Your task to perform on an android device: Do I have any events this weekend? Image 0: 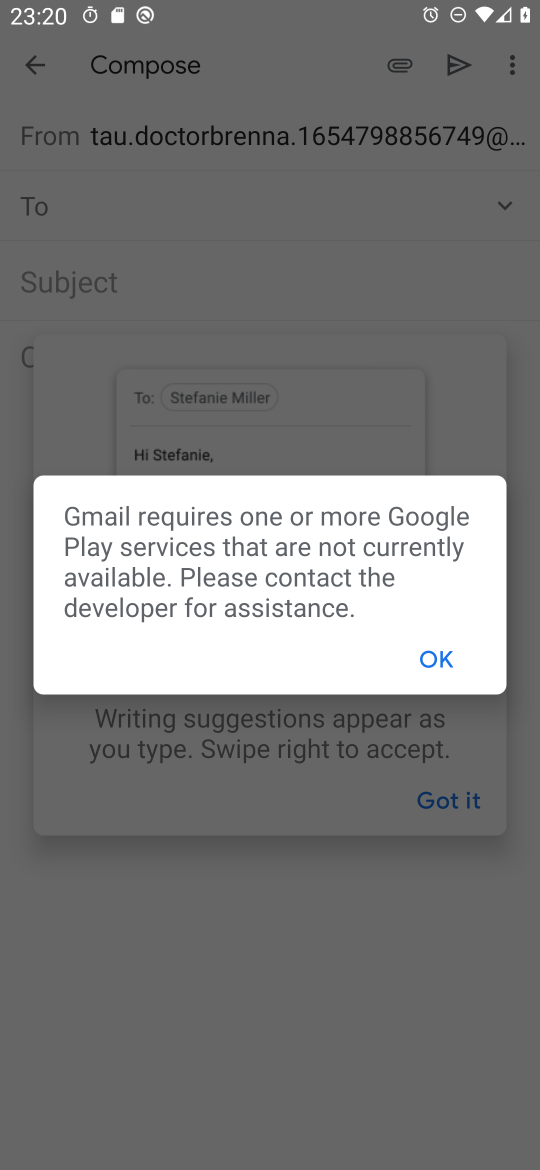
Step 0: press home button
Your task to perform on an android device: Do I have any events this weekend? Image 1: 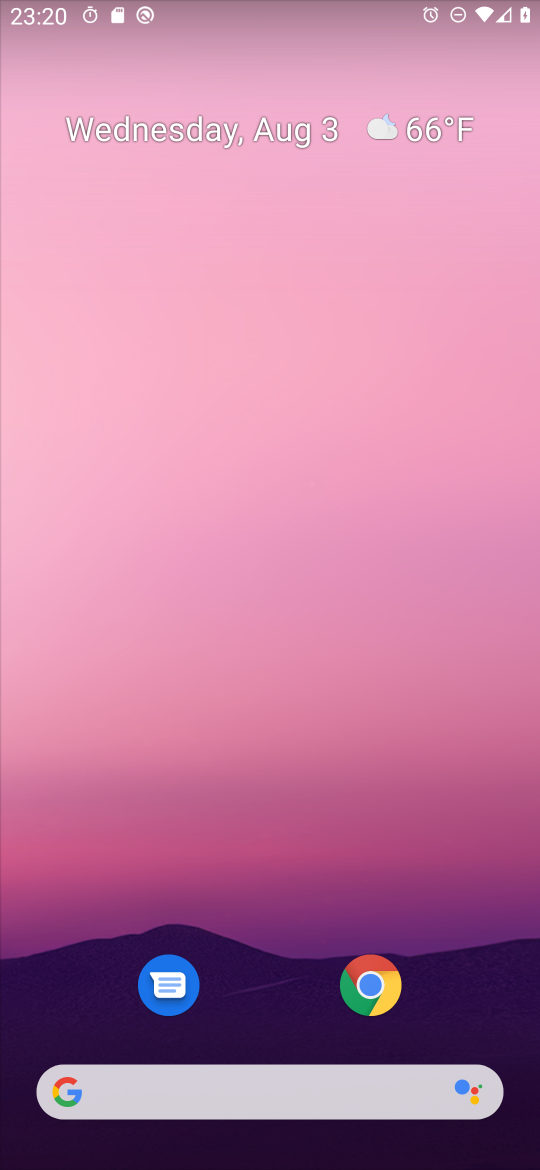
Step 1: drag from (258, 966) to (277, 341)
Your task to perform on an android device: Do I have any events this weekend? Image 2: 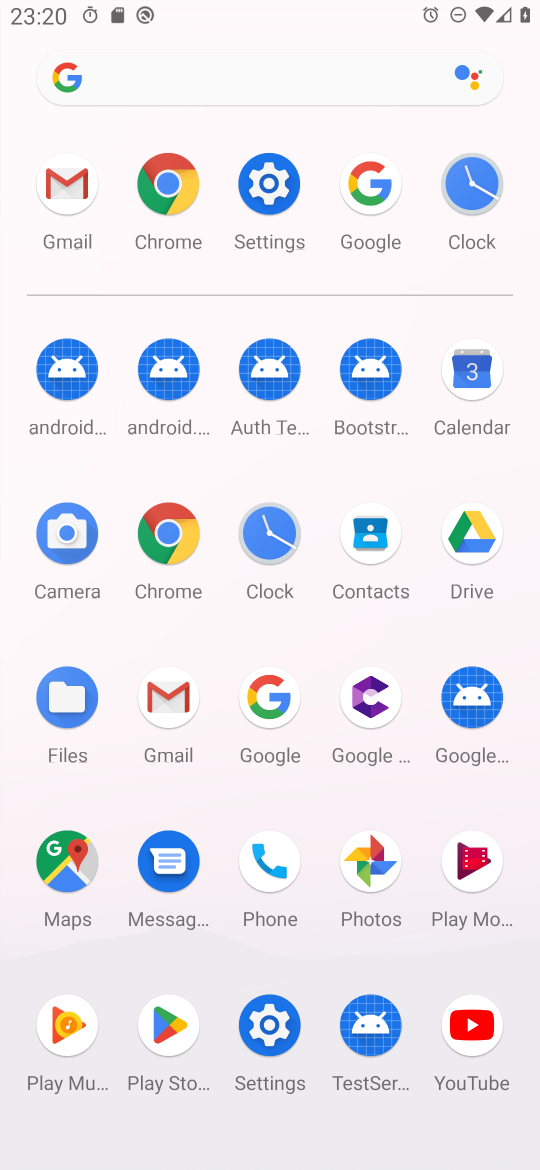
Step 2: click (462, 407)
Your task to perform on an android device: Do I have any events this weekend? Image 3: 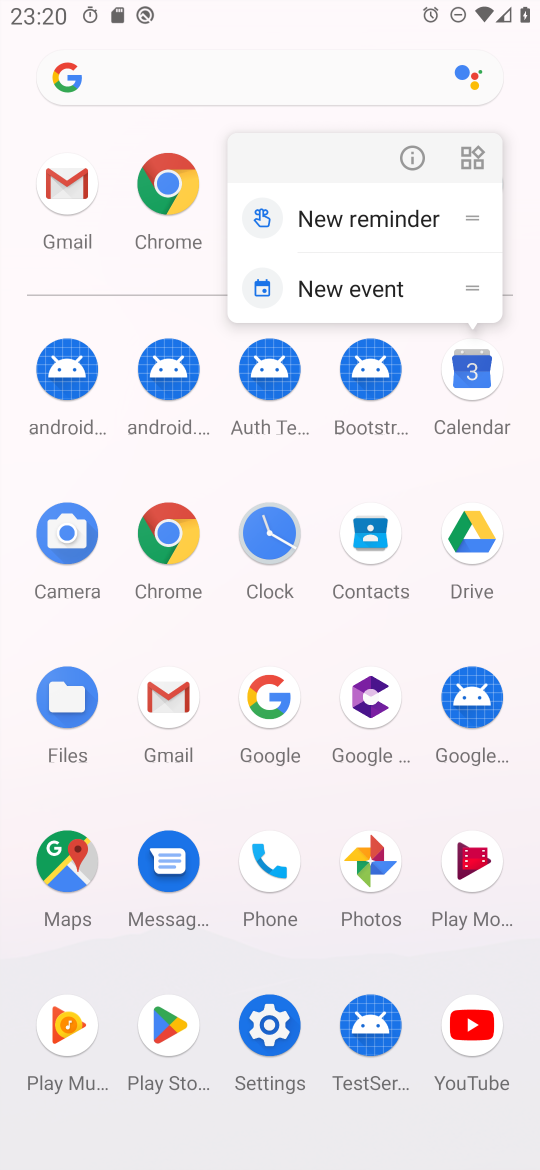
Step 3: click (462, 407)
Your task to perform on an android device: Do I have any events this weekend? Image 4: 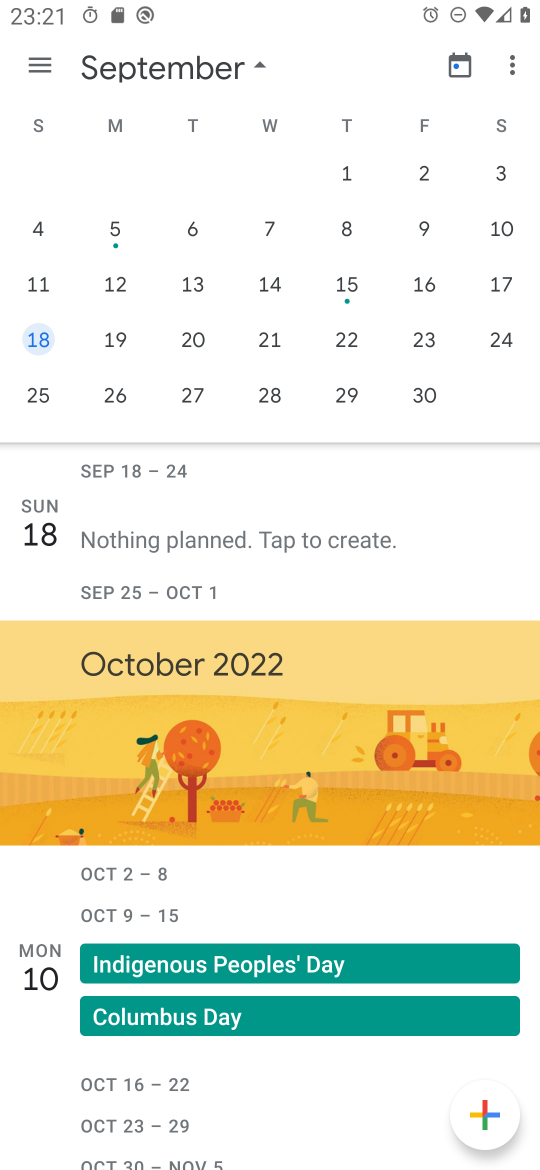
Step 4: drag from (97, 286) to (474, 292)
Your task to perform on an android device: Do I have any events this weekend? Image 5: 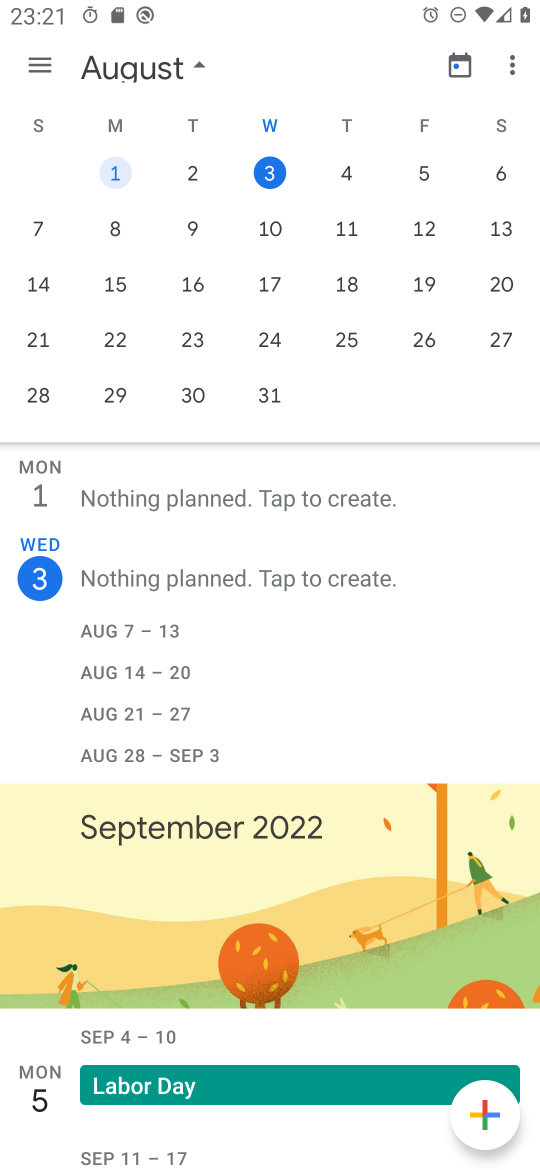
Step 5: click (509, 176)
Your task to perform on an android device: Do I have any events this weekend? Image 6: 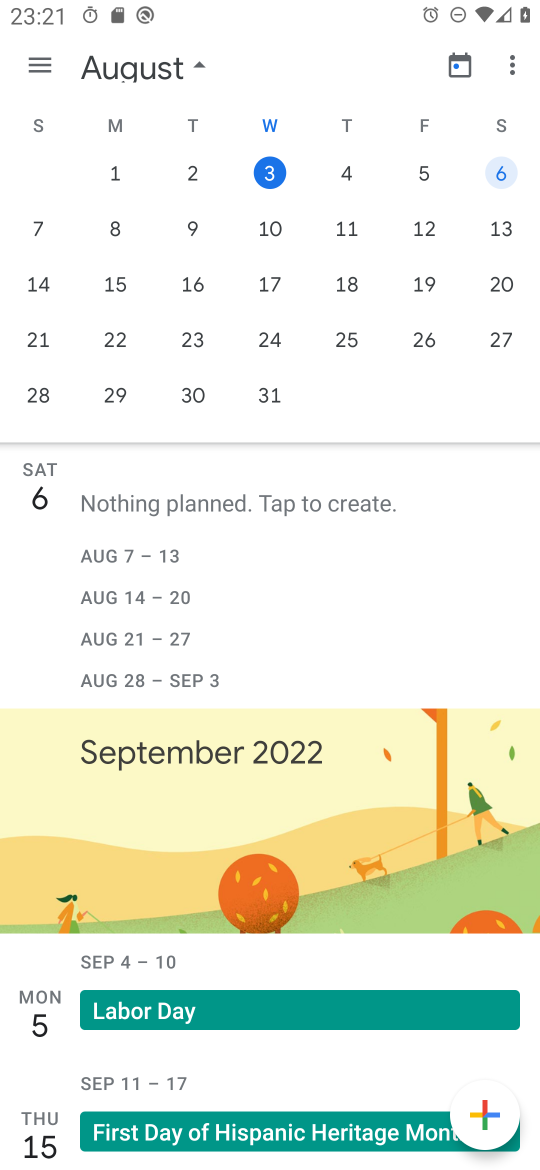
Step 6: task complete